Your task to perform on an android device: Open the web browser Image 0: 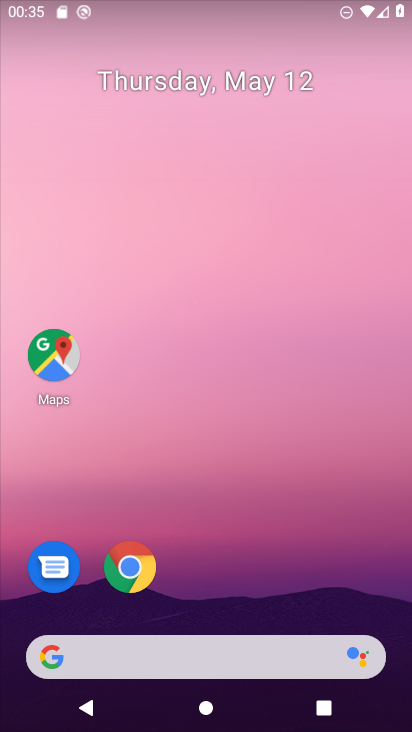
Step 0: click (136, 569)
Your task to perform on an android device: Open the web browser Image 1: 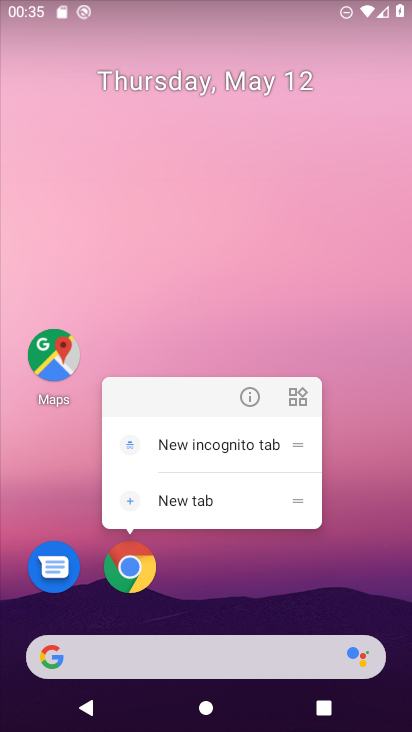
Step 1: click (129, 572)
Your task to perform on an android device: Open the web browser Image 2: 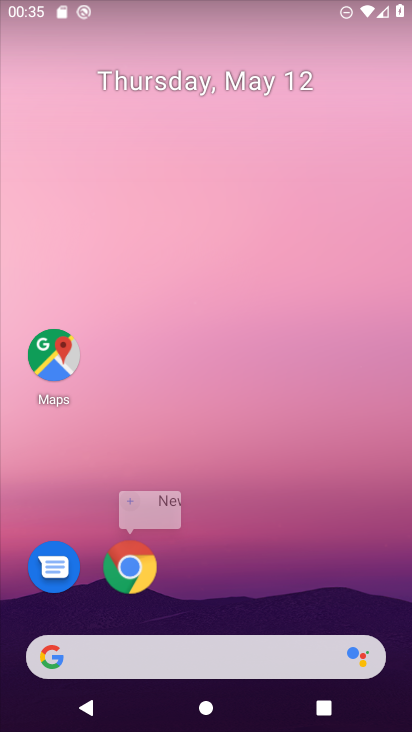
Step 2: click (129, 572)
Your task to perform on an android device: Open the web browser Image 3: 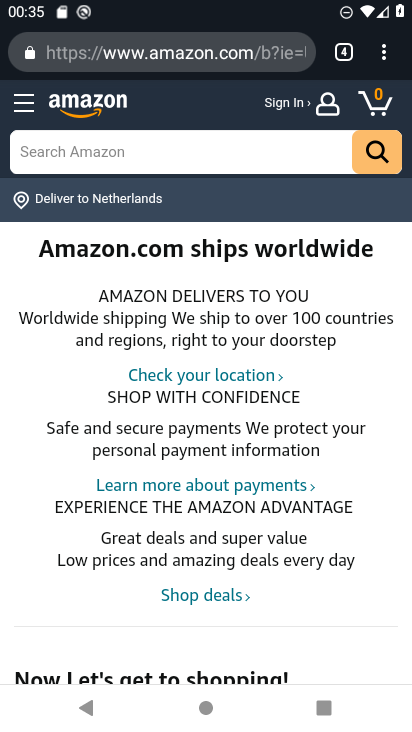
Step 3: task complete